Your task to perform on an android device: turn on sleep mode Image 0: 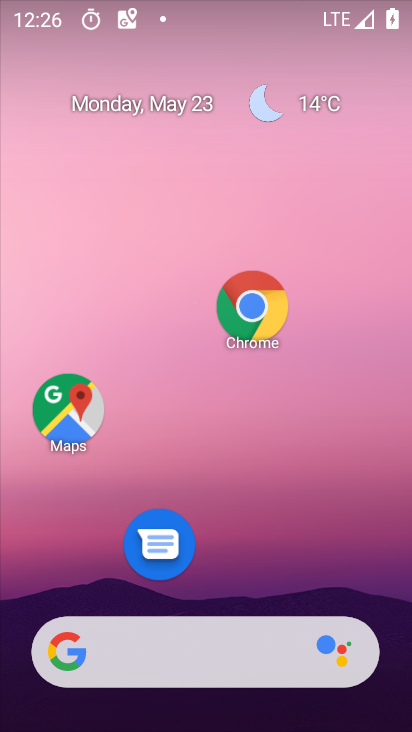
Step 0: drag from (250, 596) to (218, 193)
Your task to perform on an android device: turn on sleep mode Image 1: 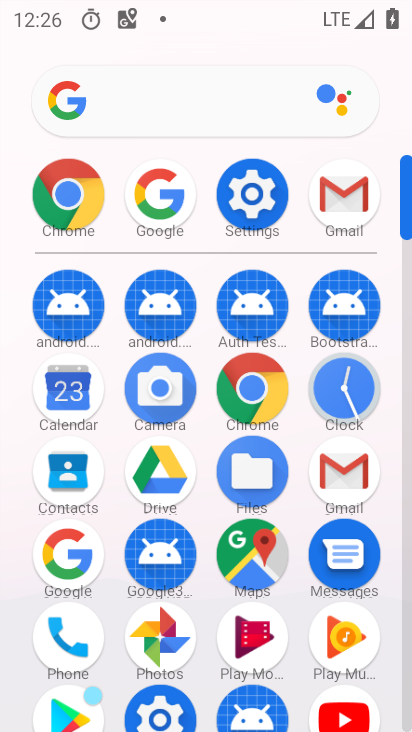
Step 1: click (241, 186)
Your task to perform on an android device: turn on sleep mode Image 2: 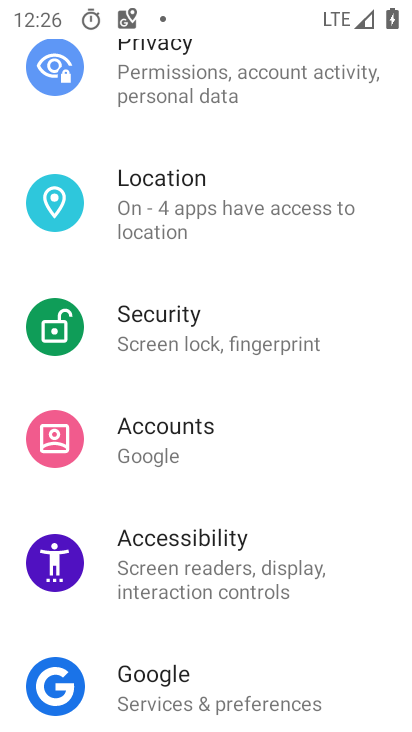
Step 2: task complete